Your task to perform on an android device: Open the web browser Image 0: 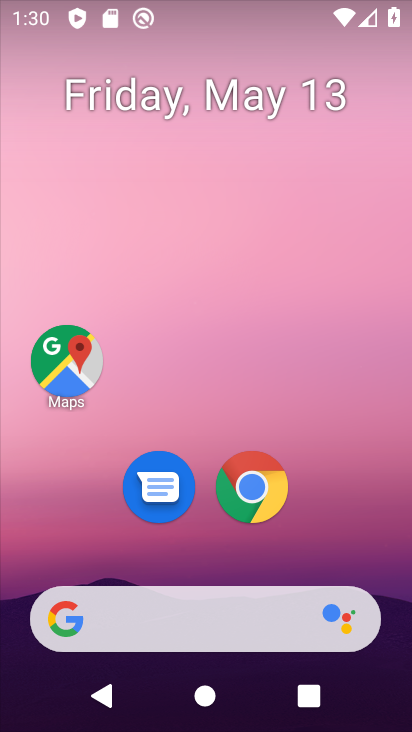
Step 0: drag from (173, 584) to (243, 171)
Your task to perform on an android device: Open the web browser Image 1: 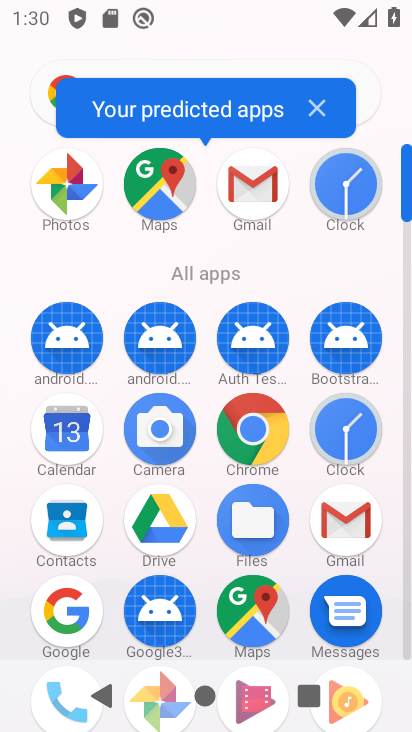
Step 1: click (44, 610)
Your task to perform on an android device: Open the web browser Image 2: 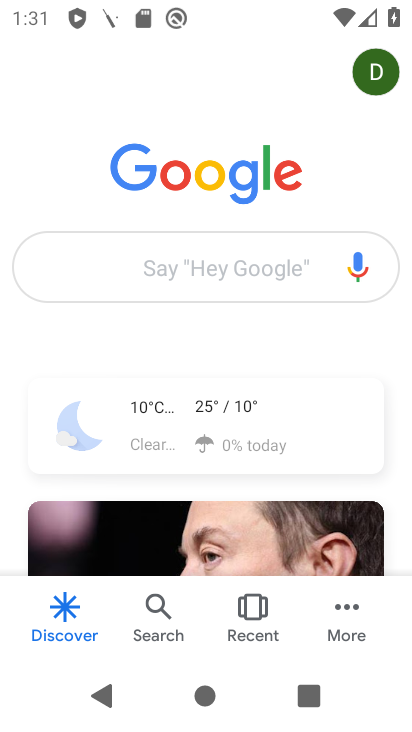
Step 2: task complete